Your task to perform on an android device: change keyboard looks Image 0: 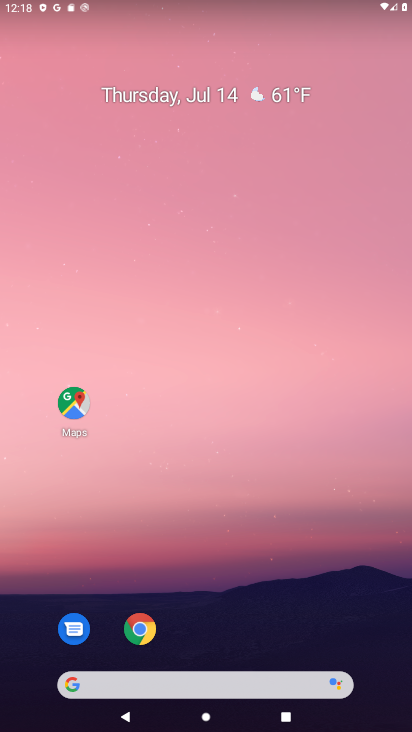
Step 0: drag from (206, 649) to (215, 315)
Your task to perform on an android device: change keyboard looks Image 1: 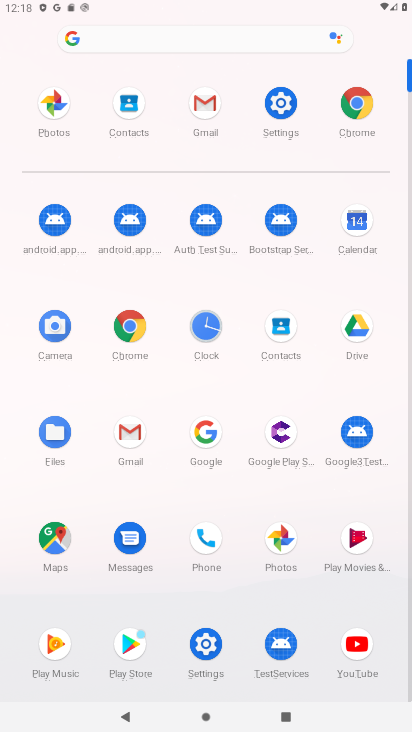
Step 1: click (269, 110)
Your task to perform on an android device: change keyboard looks Image 2: 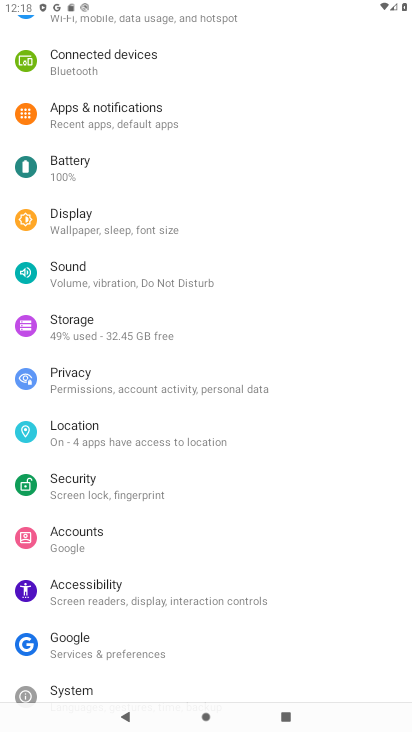
Step 2: drag from (155, 671) to (200, 257)
Your task to perform on an android device: change keyboard looks Image 3: 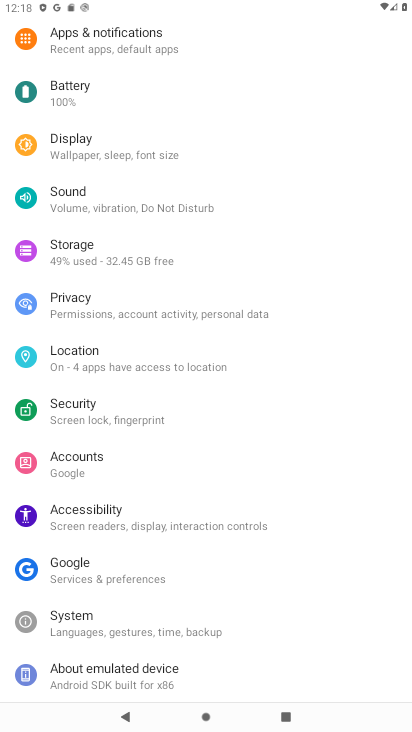
Step 3: click (125, 628)
Your task to perform on an android device: change keyboard looks Image 4: 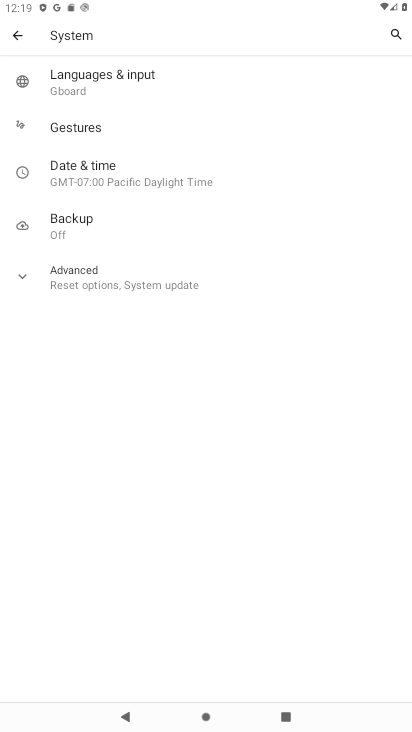
Step 4: click (85, 69)
Your task to perform on an android device: change keyboard looks Image 5: 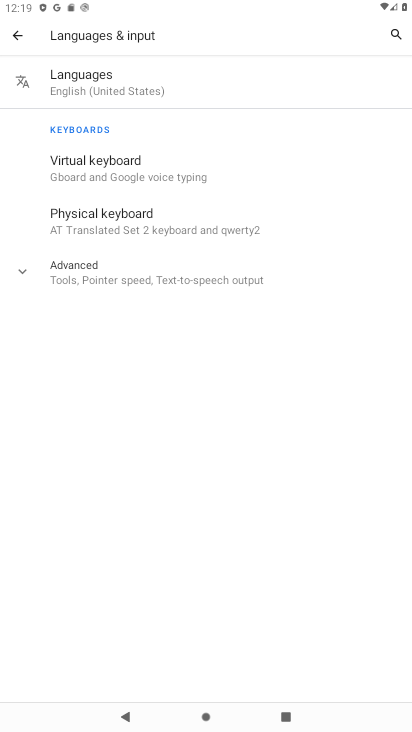
Step 5: click (109, 159)
Your task to perform on an android device: change keyboard looks Image 6: 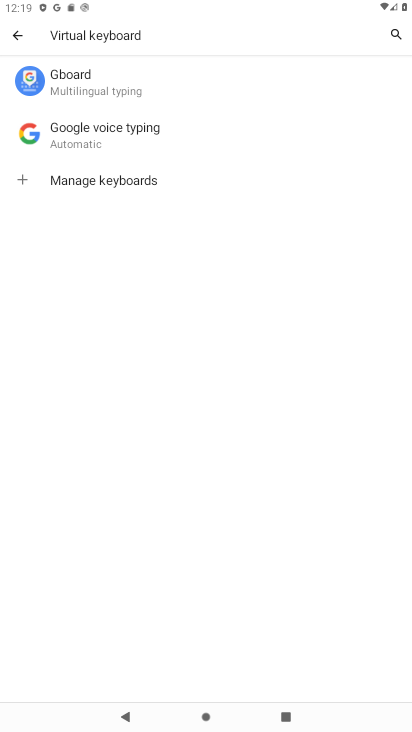
Step 6: click (104, 84)
Your task to perform on an android device: change keyboard looks Image 7: 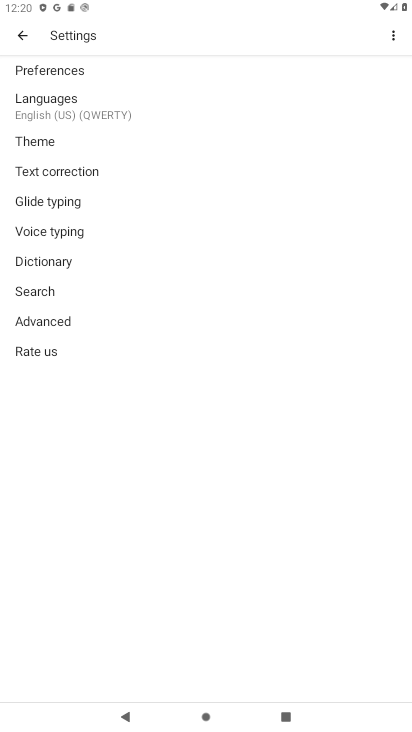
Step 7: click (65, 146)
Your task to perform on an android device: change keyboard looks Image 8: 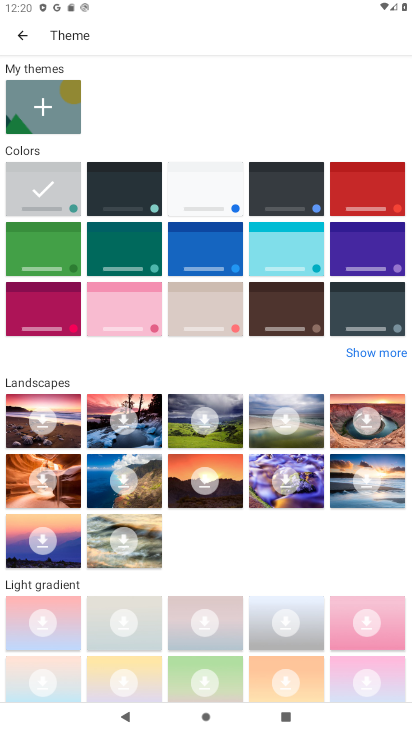
Step 8: click (360, 642)
Your task to perform on an android device: change keyboard looks Image 9: 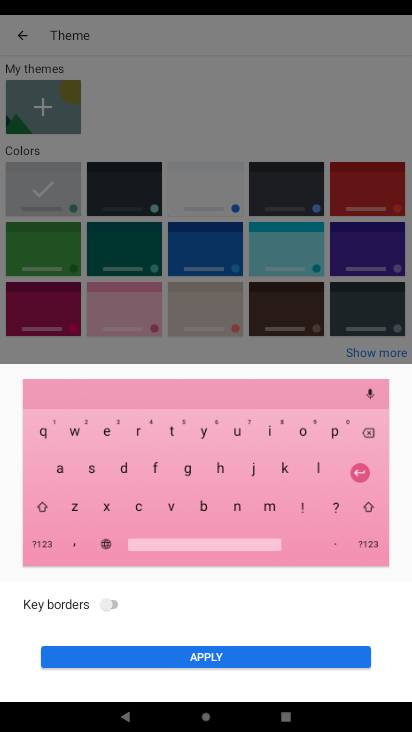
Step 9: click (319, 658)
Your task to perform on an android device: change keyboard looks Image 10: 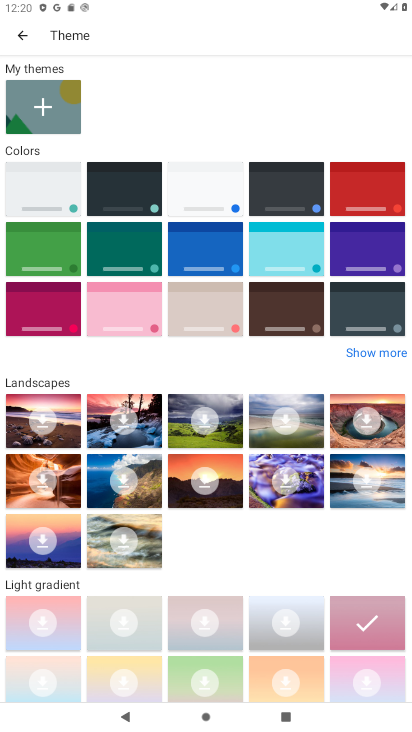
Step 10: task complete